Your task to perform on an android device: What's the weather? Image 0: 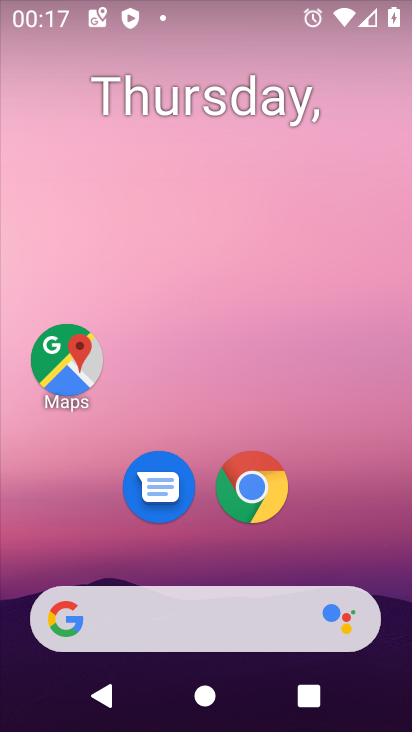
Step 0: click (116, 621)
Your task to perform on an android device: What's the weather? Image 1: 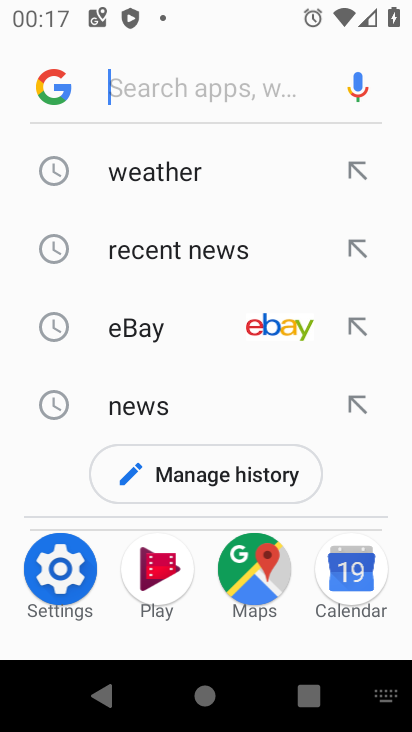
Step 1: click (140, 182)
Your task to perform on an android device: What's the weather? Image 2: 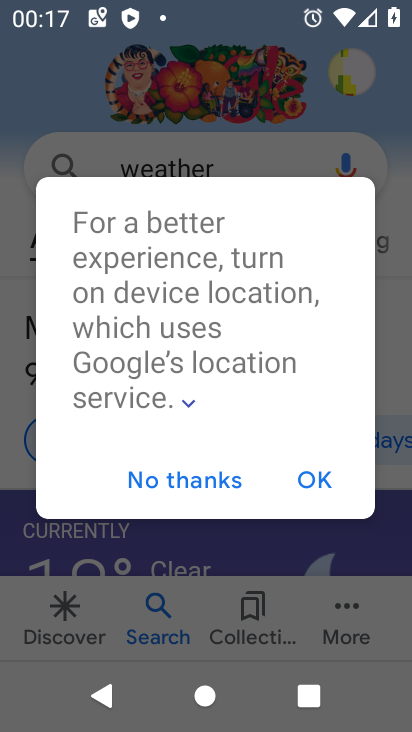
Step 2: drag from (260, 494) to (189, 474)
Your task to perform on an android device: What's the weather? Image 3: 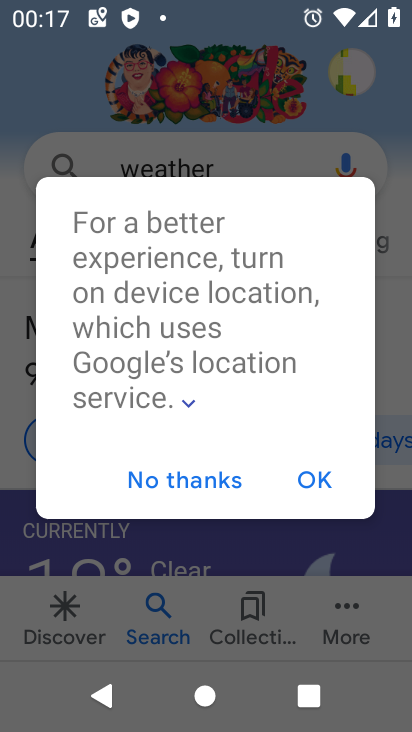
Step 3: click (188, 473)
Your task to perform on an android device: What's the weather? Image 4: 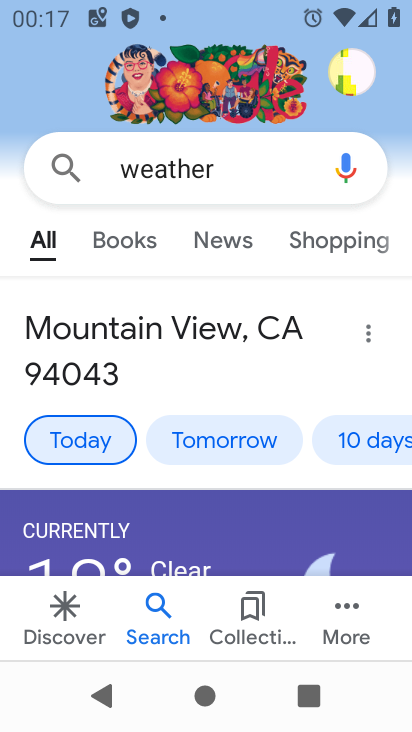
Step 4: task complete